Your task to perform on an android device: open app "Walmart Shopping & Grocery" (install if not already installed) and go to login screen Image 0: 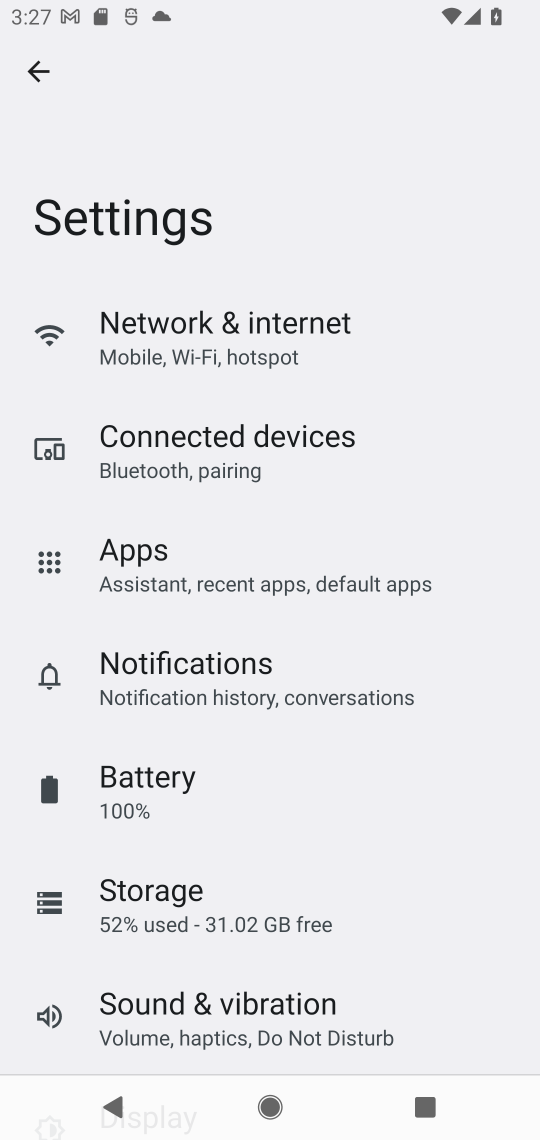
Step 0: press home button
Your task to perform on an android device: open app "Walmart Shopping & Grocery" (install if not already installed) and go to login screen Image 1: 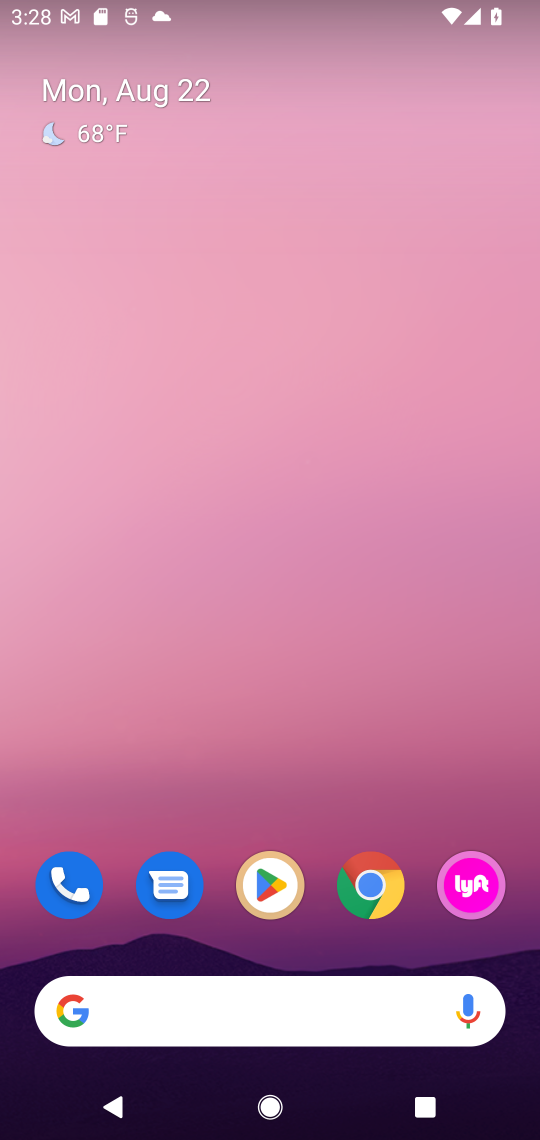
Step 1: click (266, 878)
Your task to perform on an android device: open app "Walmart Shopping & Grocery" (install if not already installed) and go to login screen Image 2: 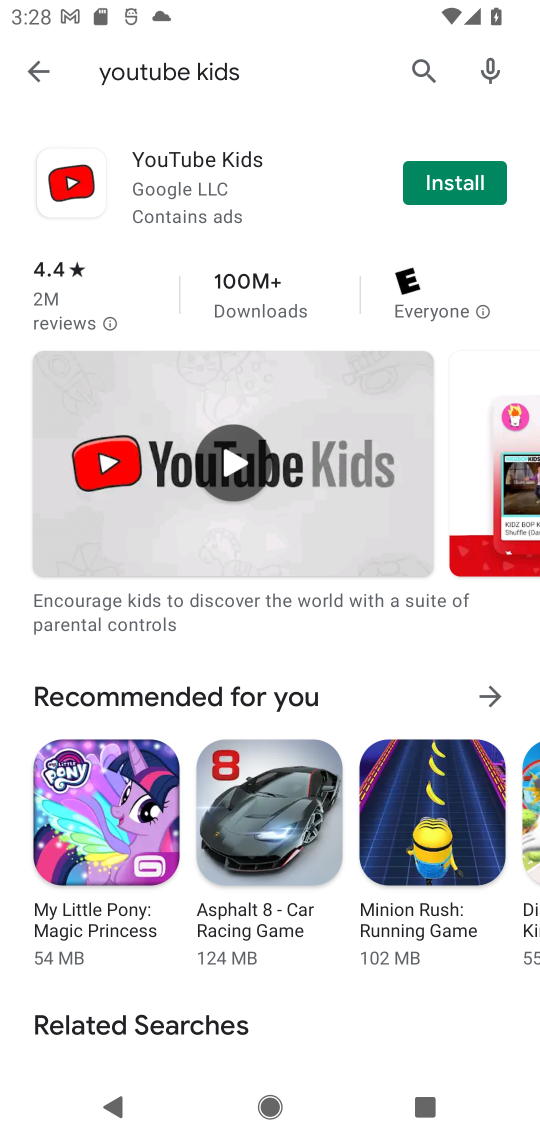
Step 2: click (424, 64)
Your task to perform on an android device: open app "Walmart Shopping & Grocery" (install if not already installed) and go to login screen Image 3: 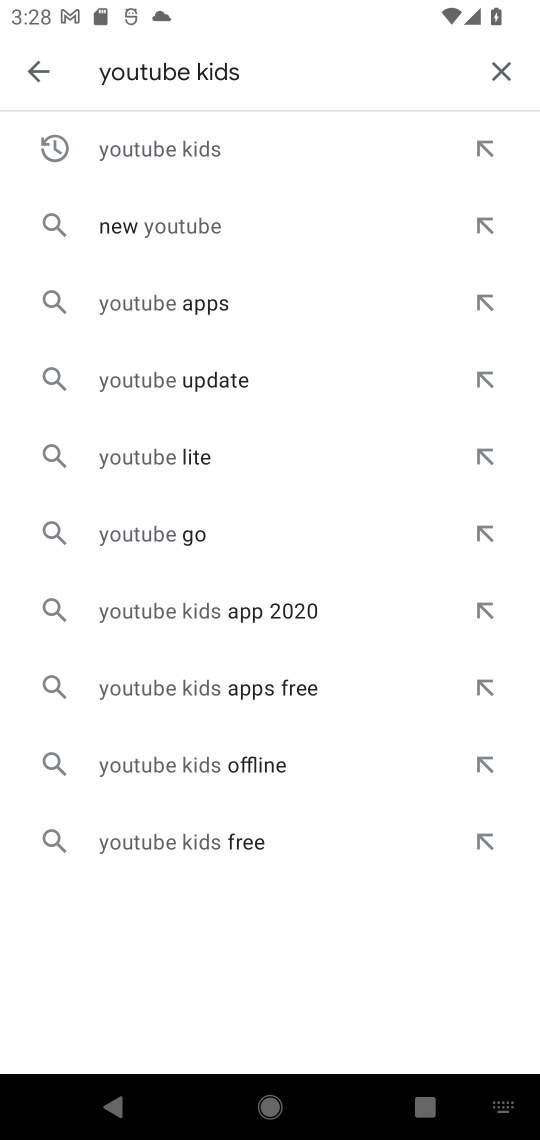
Step 3: click (502, 72)
Your task to perform on an android device: open app "Walmart Shopping & Grocery" (install if not already installed) and go to login screen Image 4: 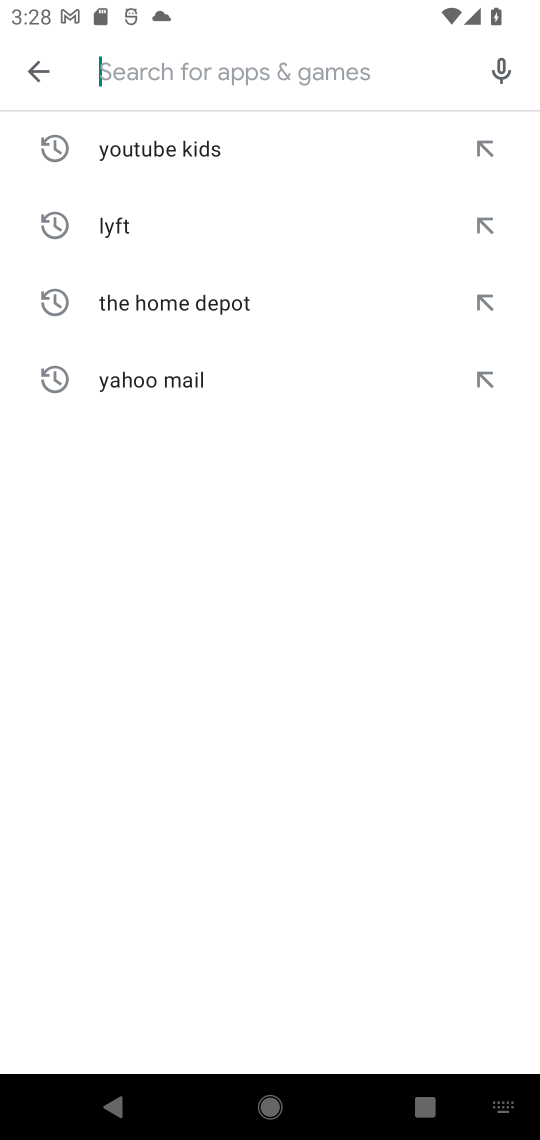
Step 4: type "Walmart Shopping & Grocery"
Your task to perform on an android device: open app "Walmart Shopping & Grocery" (install if not already installed) and go to login screen Image 5: 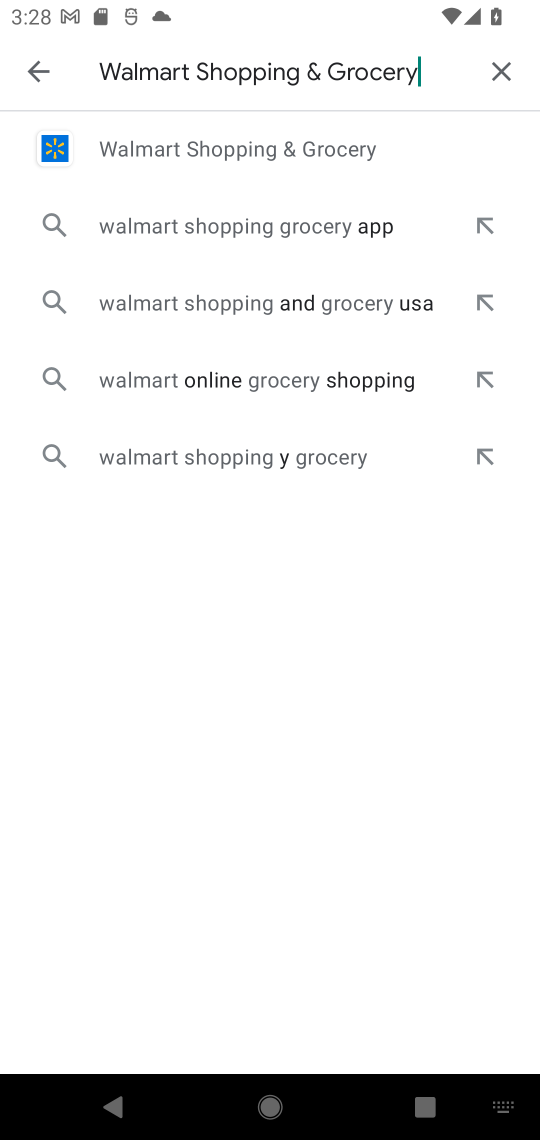
Step 5: click (130, 140)
Your task to perform on an android device: open app "Walmart Shopping & Grocery" (install if not already installed) and go to login screen Image 6: 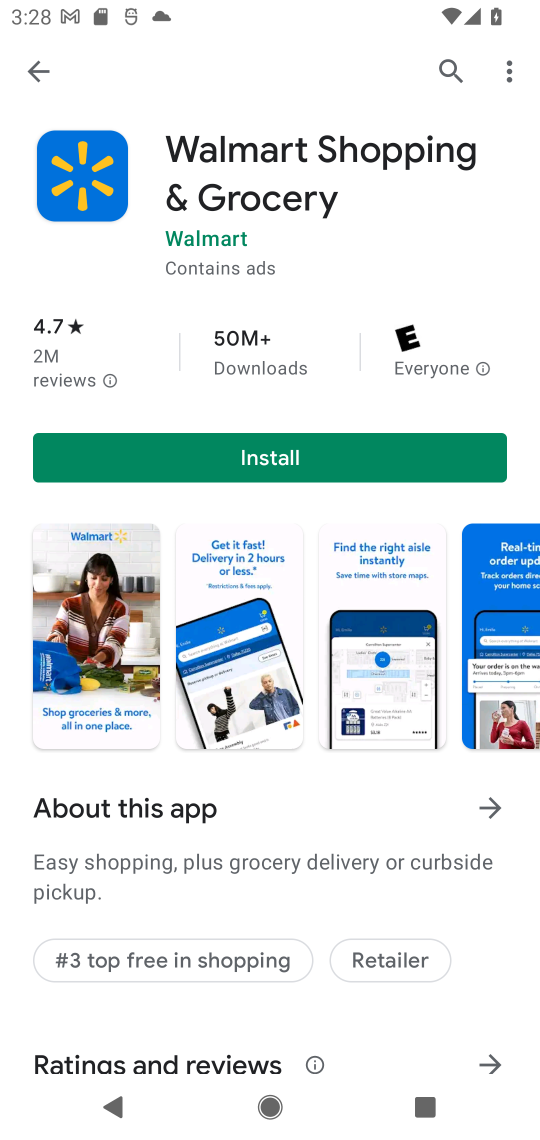
Step 6: click (266, 465)
Your task to perform on an android device: open app "Walmart Shopping & Grocery" (install if not already installed) and go to login screen Image 7: 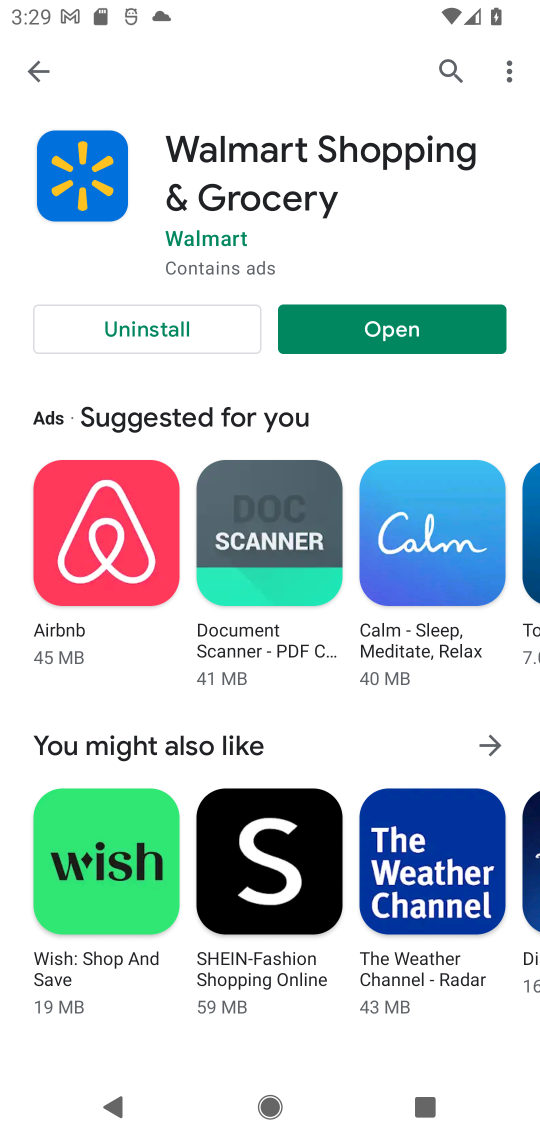
Step 7: click (416, 328)
Your task to perform on an android device: open app "Walmart Shopping & Grocery" (install if not already installed) and go to login screen Image 8: 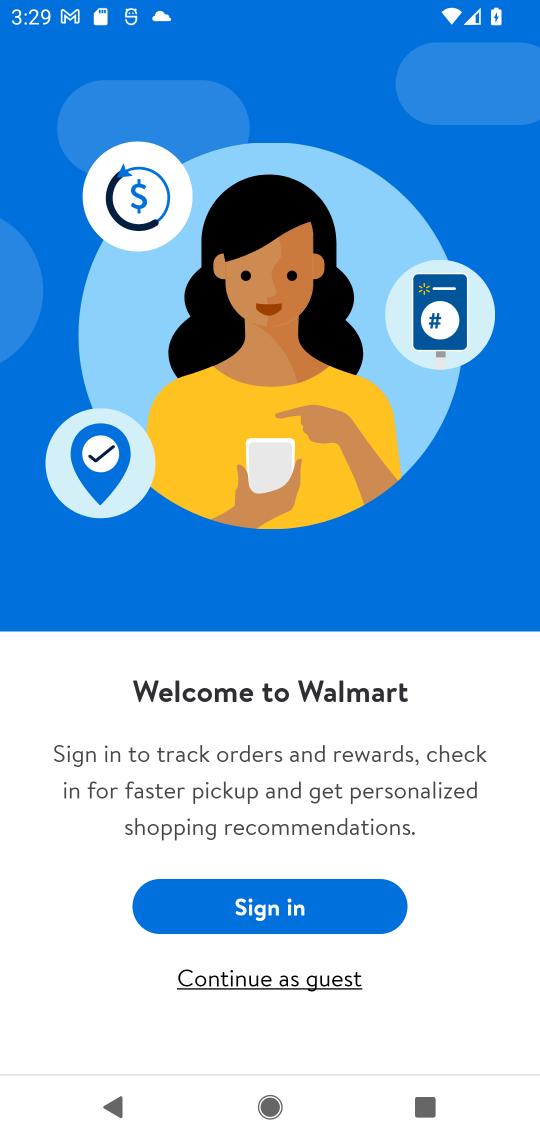
Step 8: task complete